Your task to perform on an android device: check out phone information Image 0: 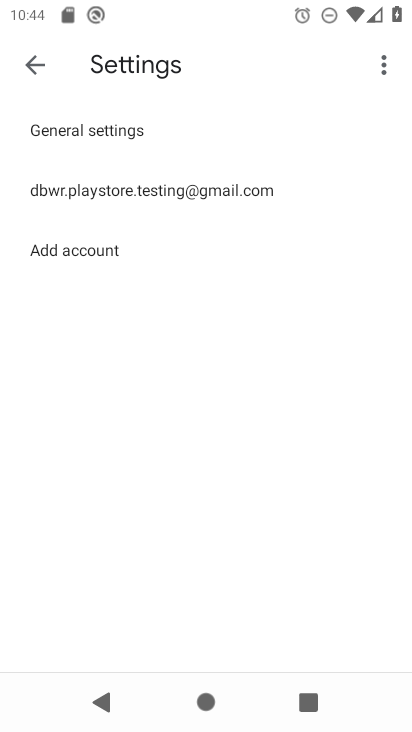
Step 0: press home button
Your task to perform on an android device: check out phone information Image 1: 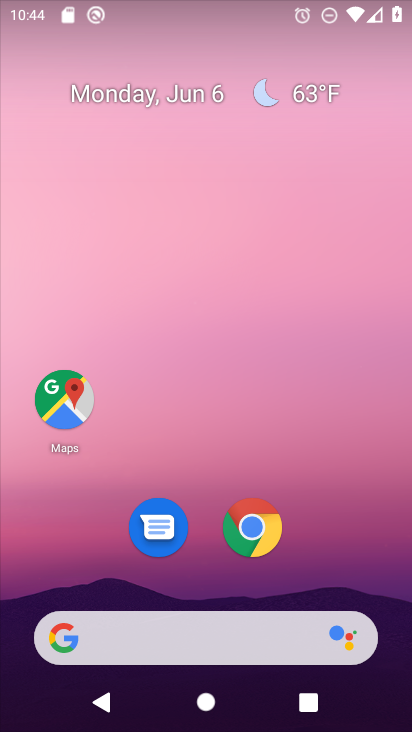
Step 1: drag from (365, 552) to (351, 201)
Your task to perform on an android device: check out phone information Image 2: 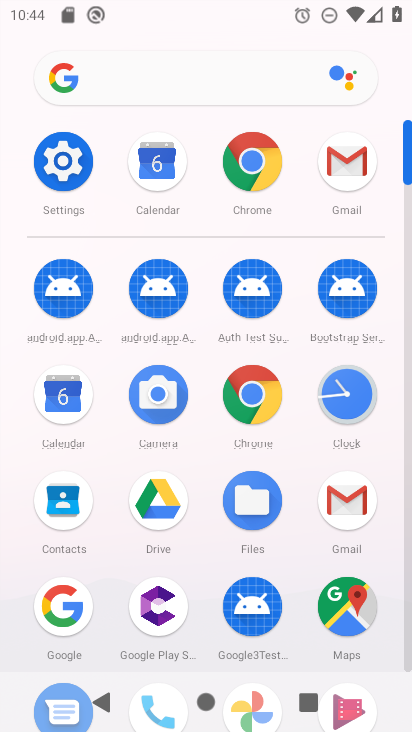
Step 2: drag from (287, 578) to (294, 385)
Your task to perform on an android device: check out phone information Image 3: 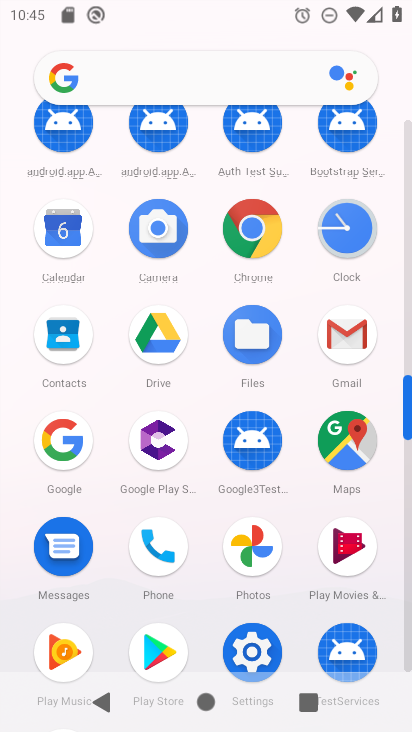
Step 3: click (159, 550)
Your task to perform on an android device: check out phone information Image 4: 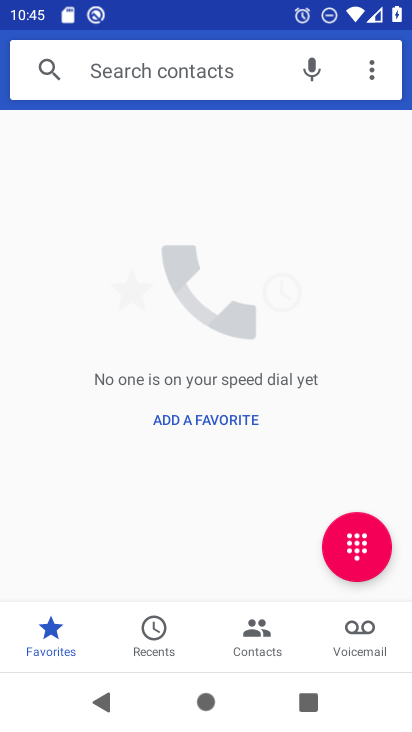
Step 4: task complete